Your task to perform on an android device: move an email to a new category in the gmail app Image 0: 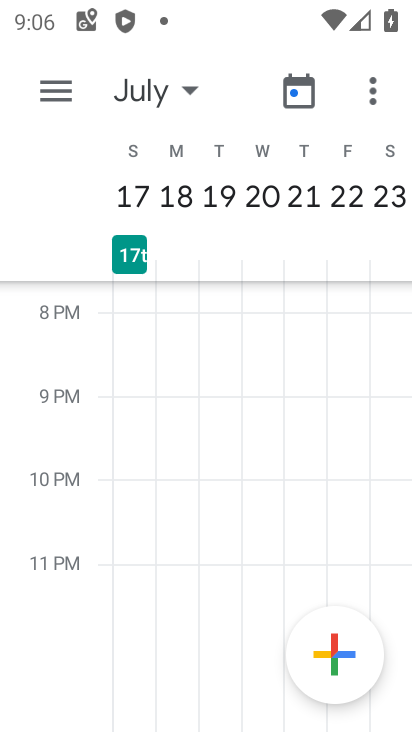
Step 0: press home button
Your task to perform on an android device: move an email to a new category in the gmail app Image 1: 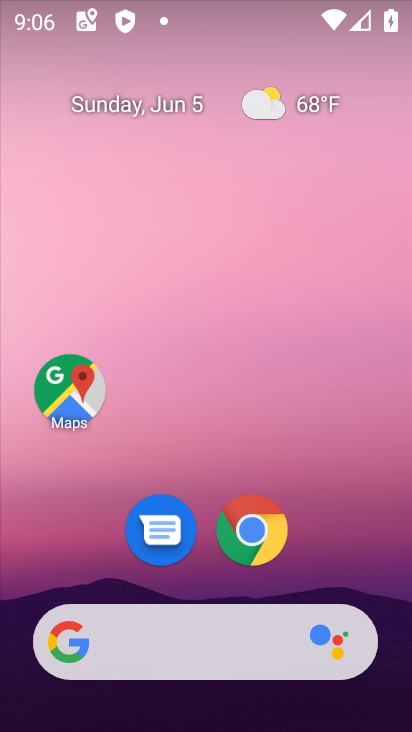
Step 1: drag from (382, 629) to (331, 93)
Your task to perform on an android device: move an email to a new category in the gmail app Image 2: 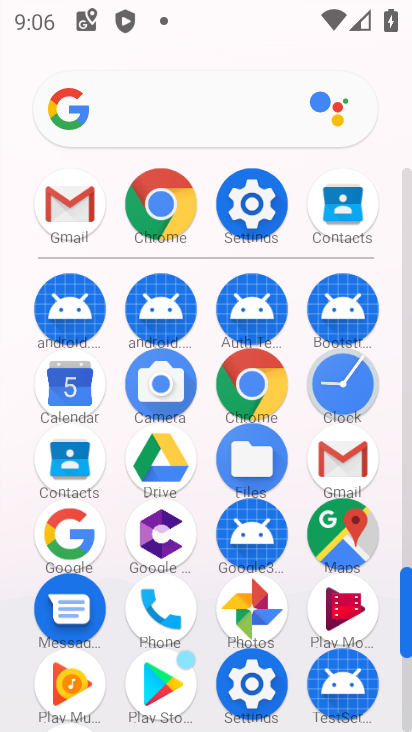
Step 2: click (341, 463)
Your task to perform on an android device: move an email to a new category in the gmail app Image 3: 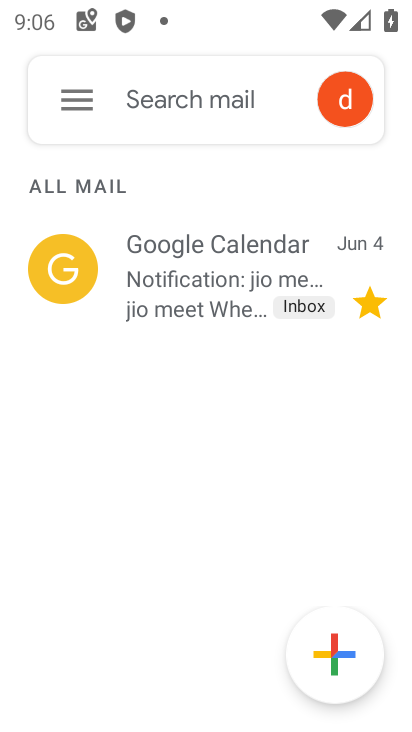
Step 3: click (76, 106)
Your task to perform on an android device: move an email to a new category in the gmail app Image 4: 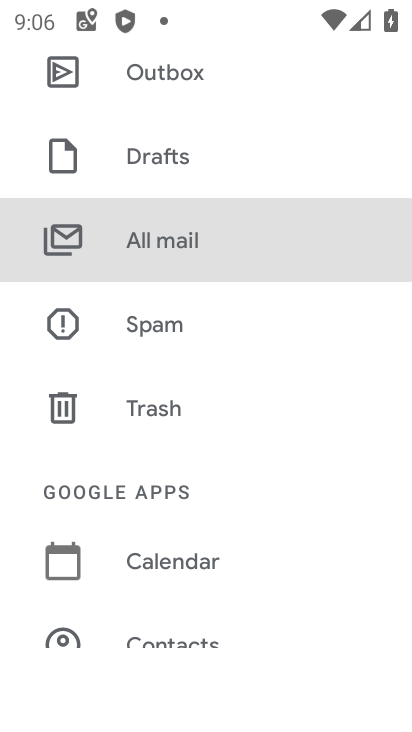
Step 4: click (169, 248)
Your task to perform on an android device: move an email to a new category in the gmail app Image 5: 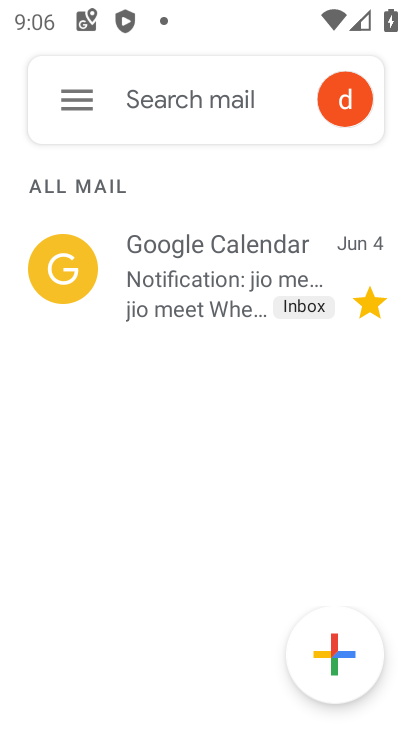
Step 5: click (192, 273)
Your task to perform on an android device: move an email to a new category in the gmail app Image 6: 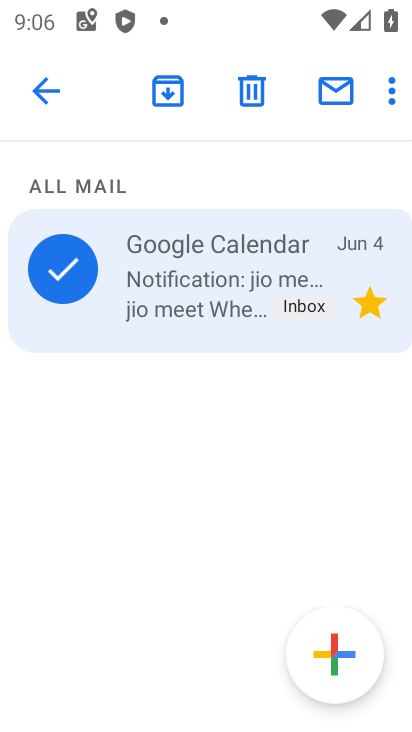
Step 6: click (393, 96)
Your task to perform on an android device: move an email to a new category in the gmail app Image 7: 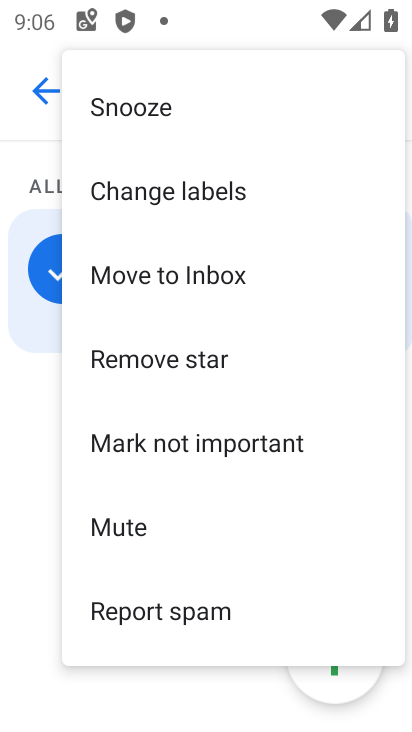
Step 7: click (147, 280)
Your task to perform on an android device: move an email to a new category in the gmail app Image 8: 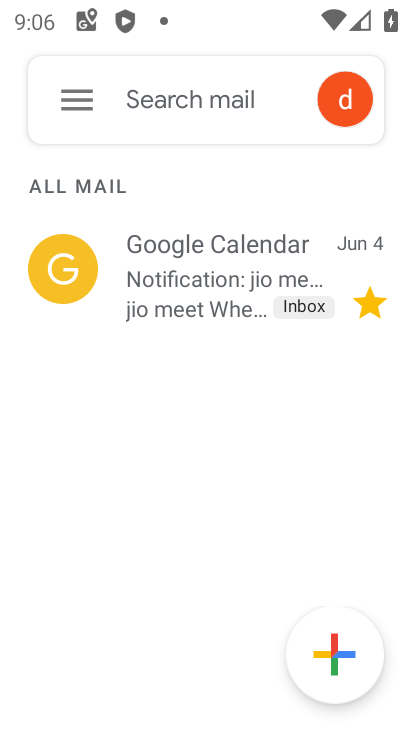
Step 8: task complete